Your task to perform on an android device: Turn on the flashlight Image 0: 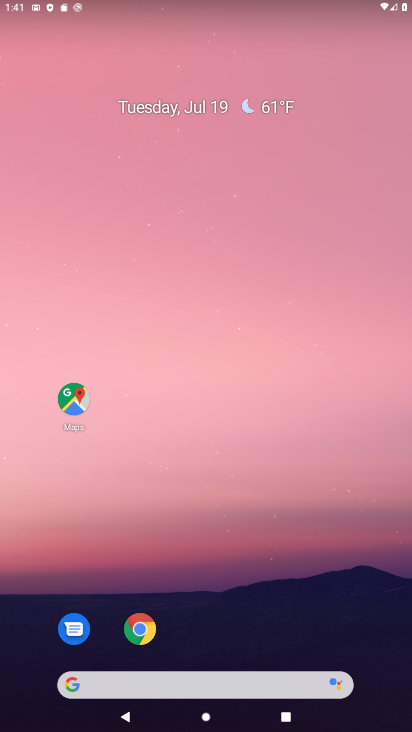
Step 0: drag from (211, 9) to (198, 340)
Your task to perform on an android device: Turn on the flashlight Image 1: 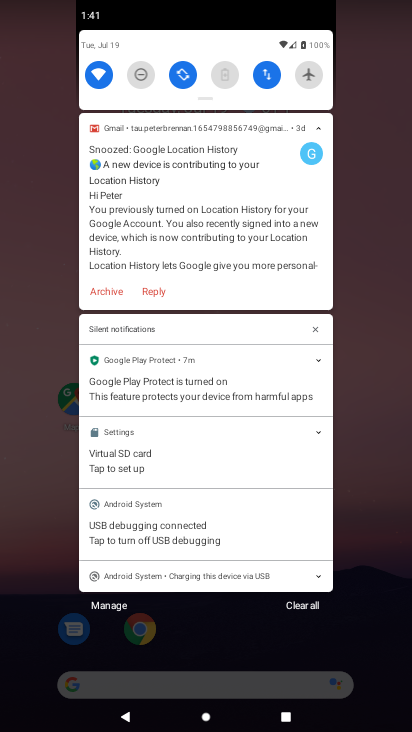
Step 1: drag from (202, 99) to (192, 357)
Your task to perform on an android device: Turn on the flashlight Image 2: 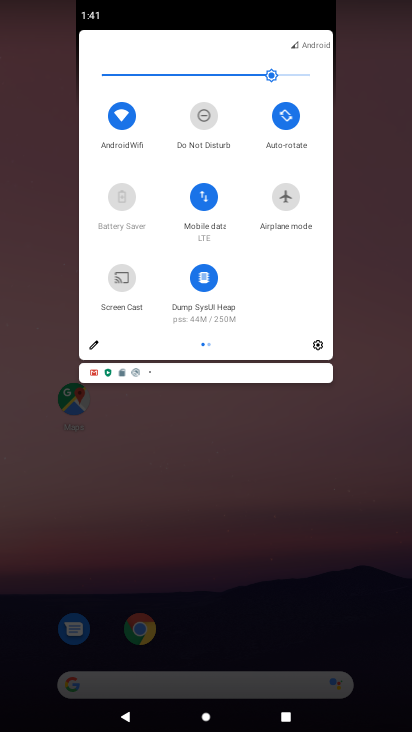
Step 2: click (94, 342)
Your task to perform on an android device: Turn on the flashlight Image 3: 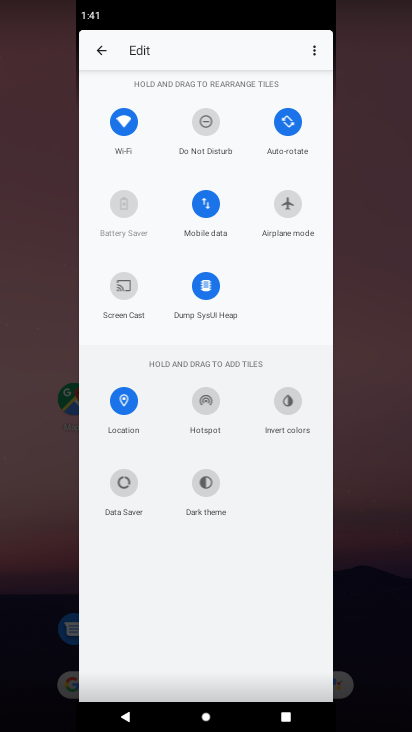
Step 3: click (257, 347)
Your task to perform on an android device: Turn on the flashlight Image 4: 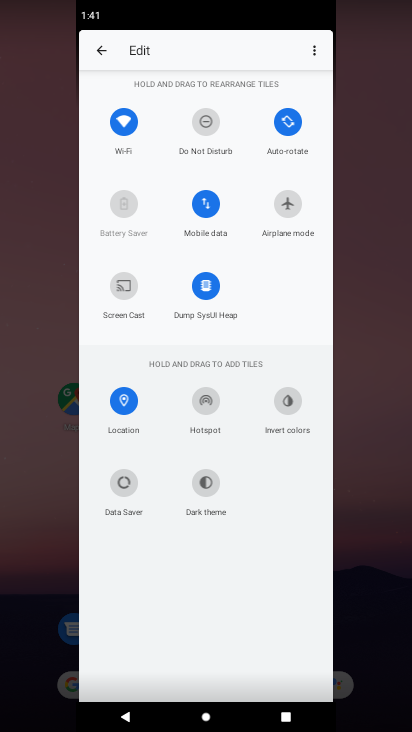
Step 4: task complete